Your task to perform on an android device: turn on the 12-hour format for clock Image 0: 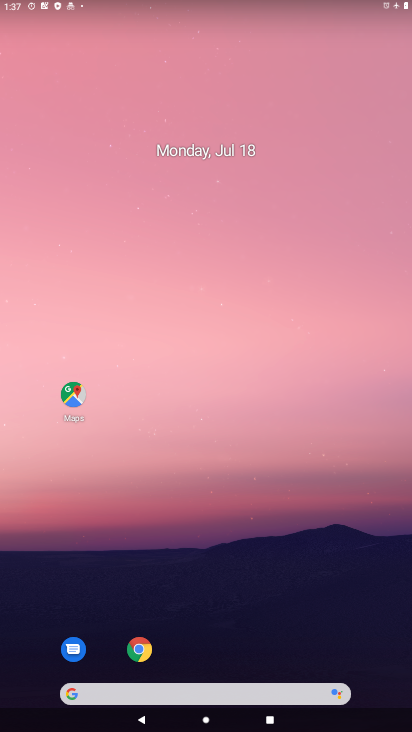
Step 0: drag from (205, 666) to (186, 57)
Your task to perform on an android device: turn on the 12-hour format for clock Image 1: 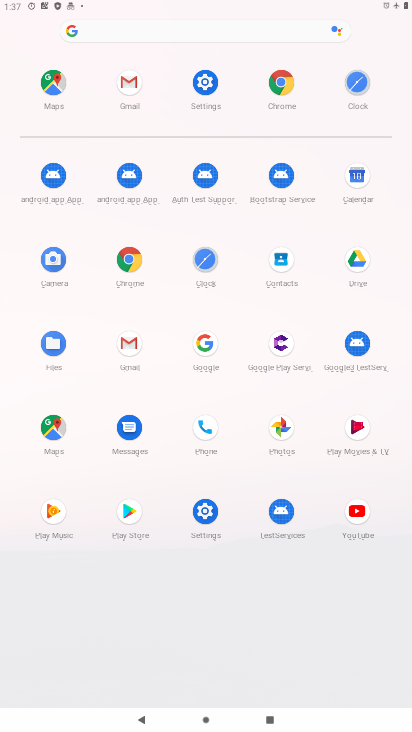
Step 1: click (201, 265)
Your task to perform on an android device: turn on the 12-hour format for clock Image 2: 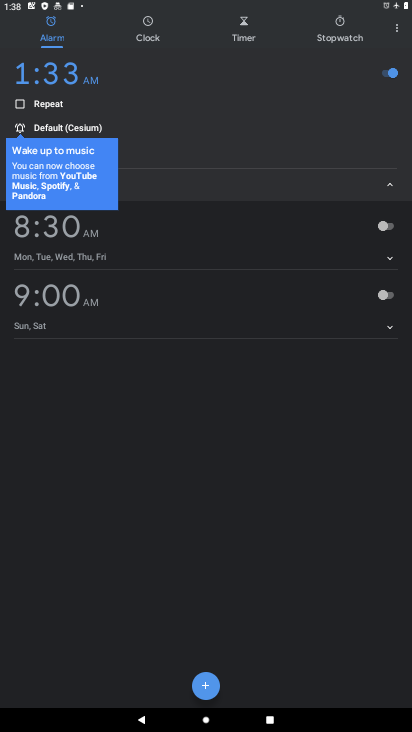
Step 2: click (396, 28)
Your task to perform on an android device: turn on the 12-hour format for clock Image 3: 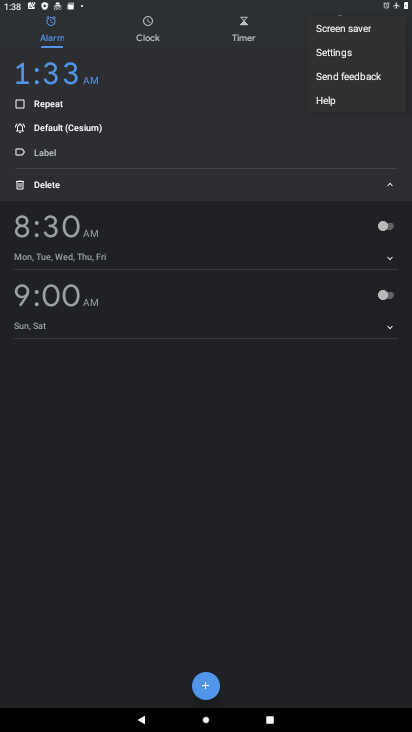
Step 3: click (335, 56)
Your task to perform on an android device: turn on the 12-hour format for clock Image 4: 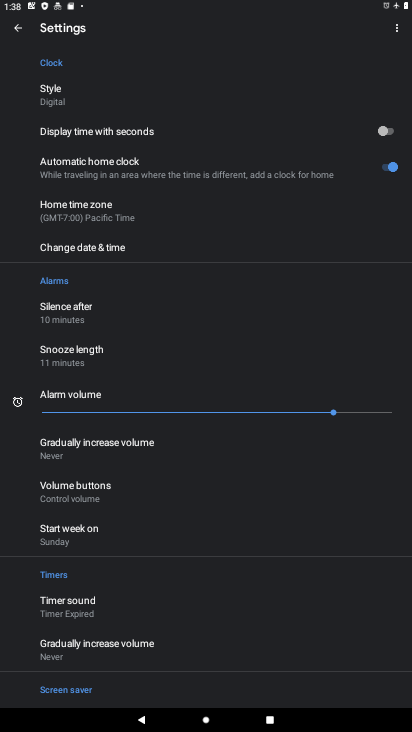
Step 4: drag from (88, 633) to (71, 16)
Your task to perform on an android device: turn on the 12-hour format for clock Image 5: 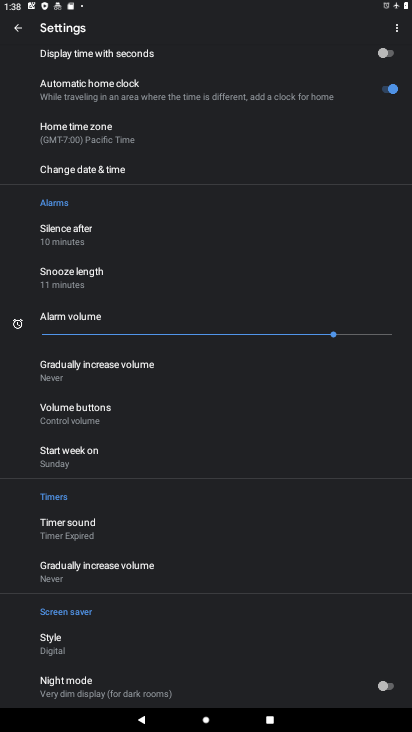
Step 5: drag from (92, 566) to (87, 200)
Your task to perform on an android device: turn on the 12-hour format for clock Image 6: 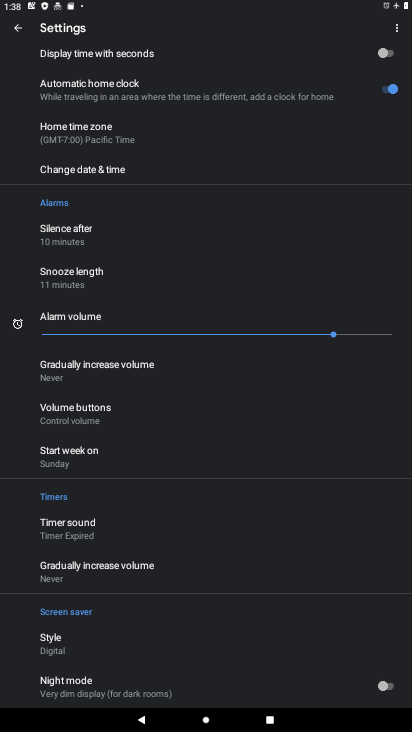
Step 6: click (86, 174)
Your task to perform on an android device: turn on the 12-hour format for clock Image 7: 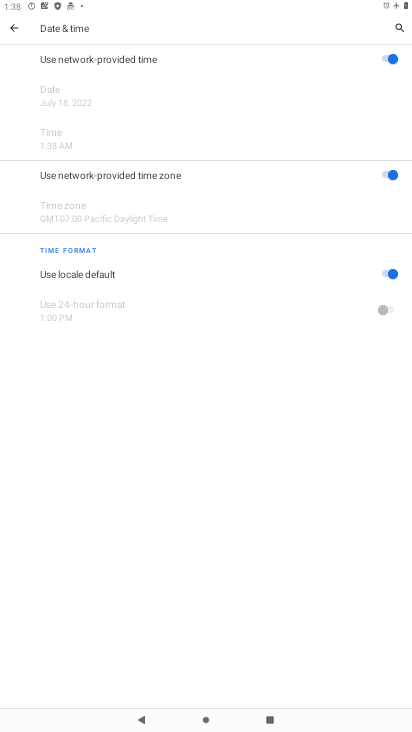
Step 7: task complete